Your task to perform on an android device: Open the phone app and click the voicemail tab. Image 0: 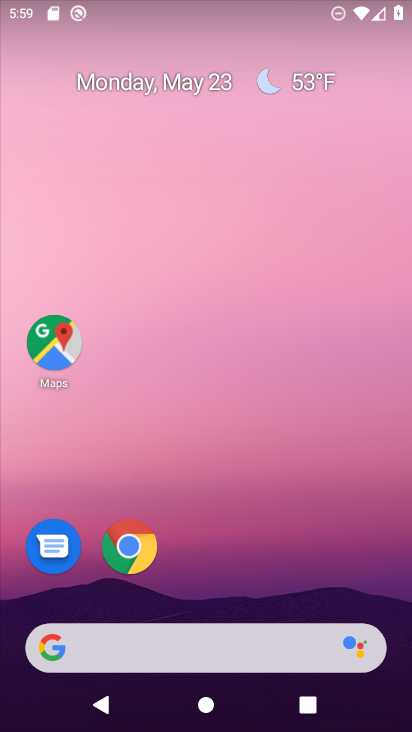
Step 0: drag from (228, 590) to (256, 229)
Your task to perform on an android device: Open the phone app and click the voicemail tab. Image 1: 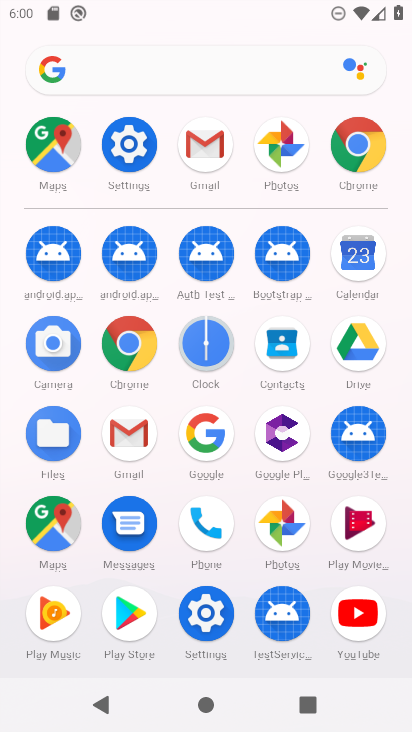
Step 1: click (198, 521)
Your task to perform on an android device: Open the phone app and click the voicemail tab. Image 2: 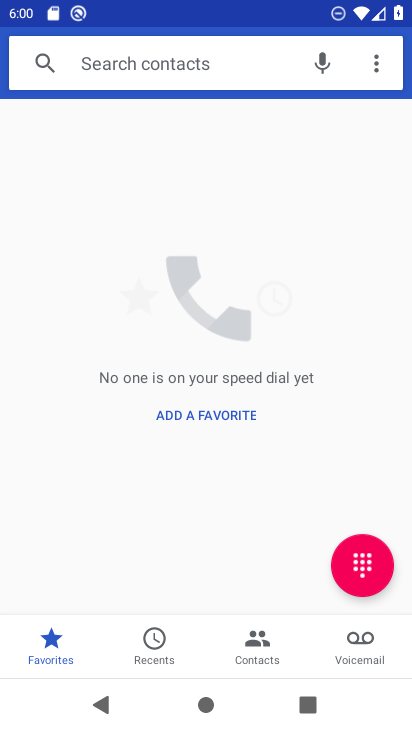
Step 2: click (361, 633)
Your task to perform on an android device: Open the phone app and click the voicemail tab. Image 3: 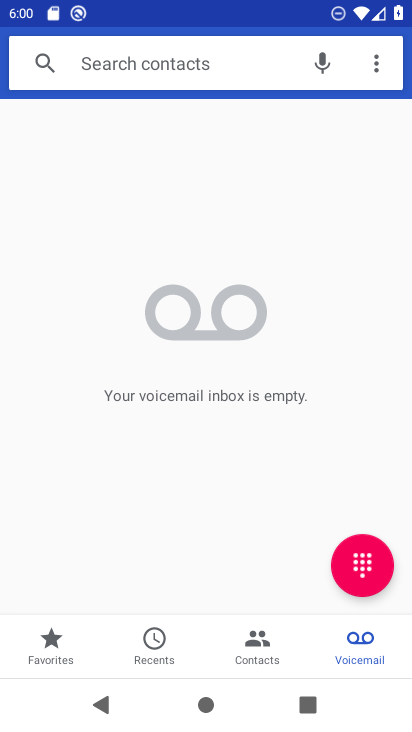
Step 3: task complete